Your task to perform on an android device: turn vacation reply on in the gmail app Image 0: 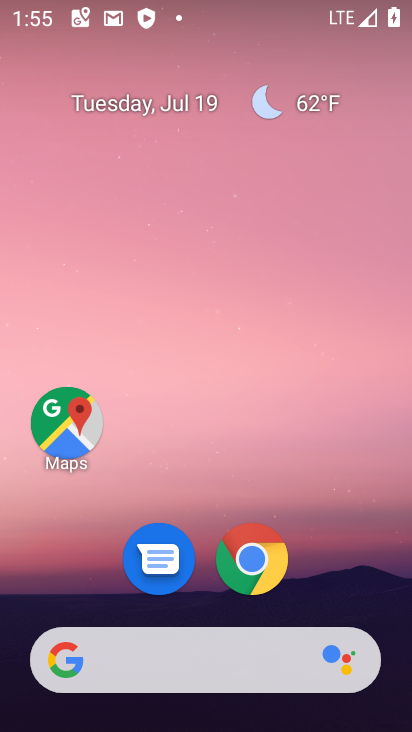
Step 0: drag from (166, 643) to (227, 349)
Your task to perform on an android device: turn vacation reply on in the gmail app Image 1: 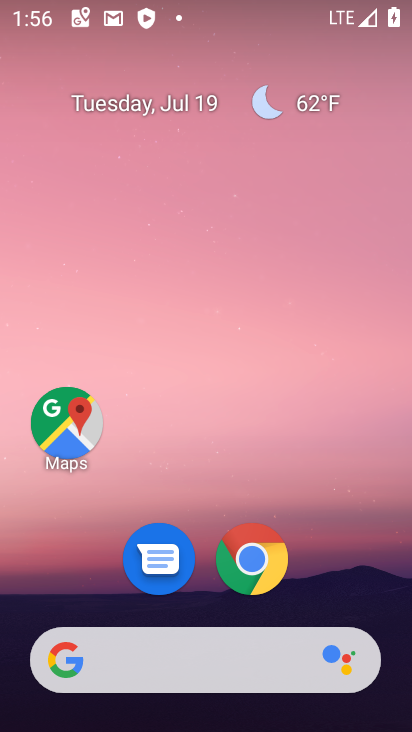
Step 1: drag from (251, 503) to (259, 147)
Your task to perform on an android device: turn vacation reply on in the gmail app Image 2: 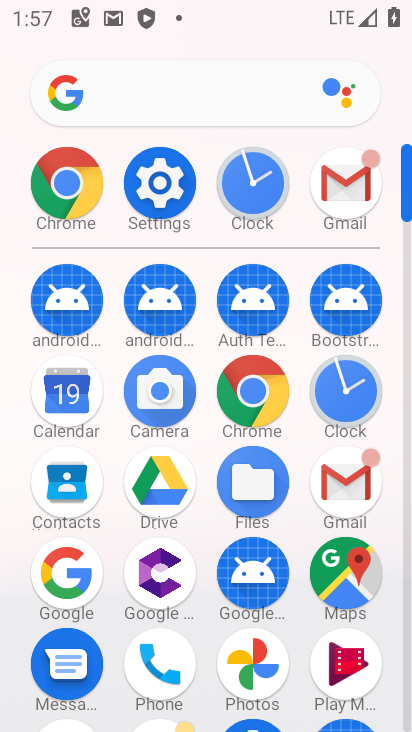
Step 2: click (355, 464)
Your task to perform on an android device: turn vacation reply on in the gmail app Image 3: 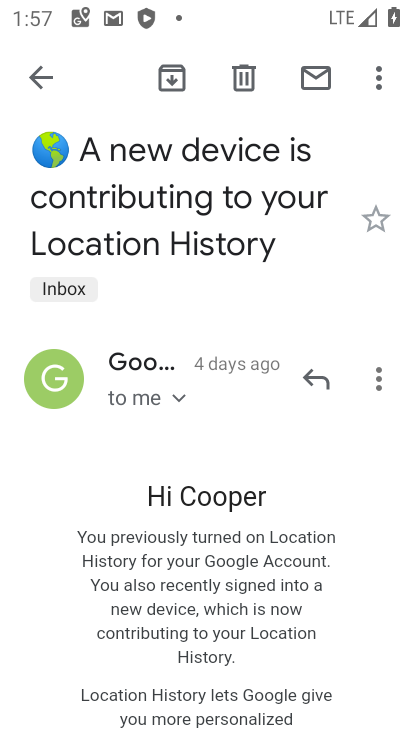
Step 3: click (30, 91)
Your task to perform on an android device: turn vacation reply on in the gmail app Image 4: 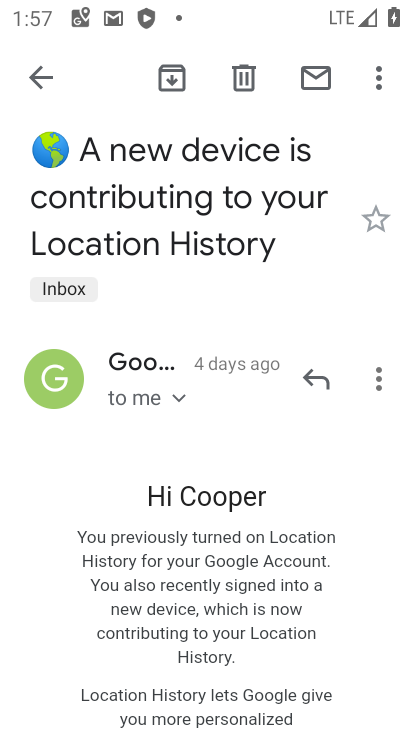
Step 4: click (39, 76)
Your task to perform on an android device: turn vacation reply on in the gmail app Image 5: 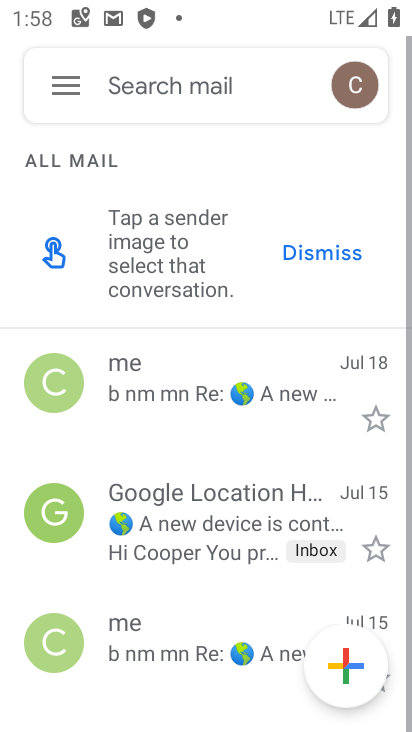
Step 5: click (58, 96)
Your task to perform on an android device: turn vacation reply on in the gmail app Image 6: 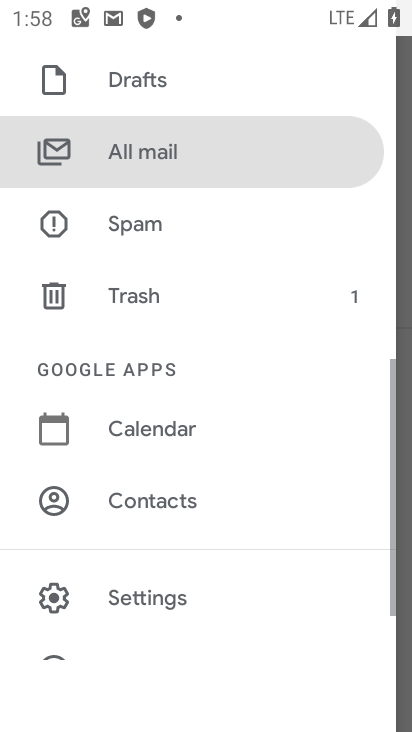
Step 6: click (152, 602)
Your task to perform on an android device: turn vacation reply on in the gmail app Image 7: 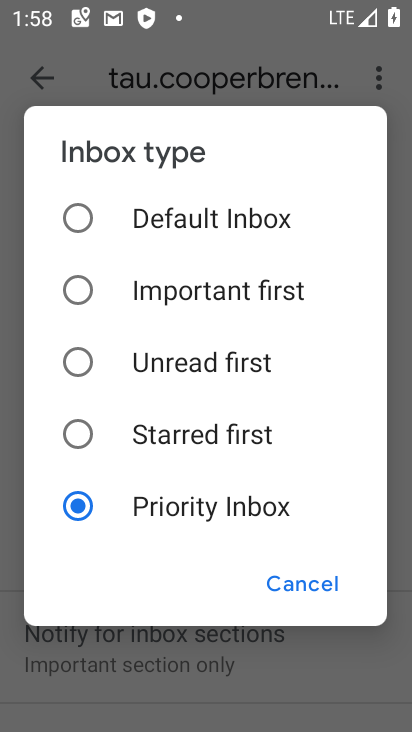
Step 7: click (328, 580)
Your task to perform on an android device: turn vacation reply on in the gmail app Image 8: 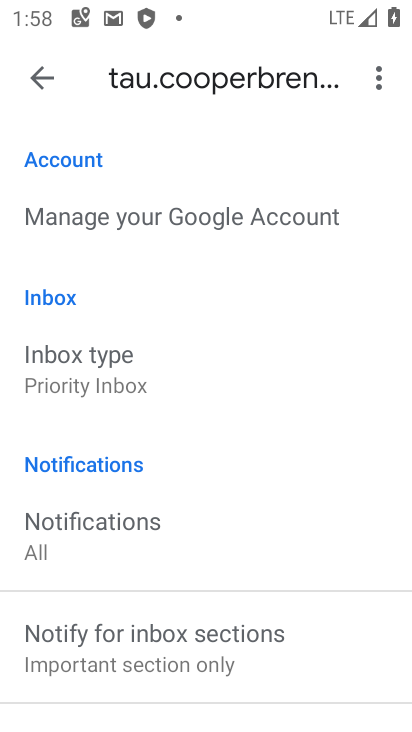
Step 8: drag from (113, 583) to (176, 73)
Your task to perform on an android device: turn vacation reply on in the gmail app Image 9: 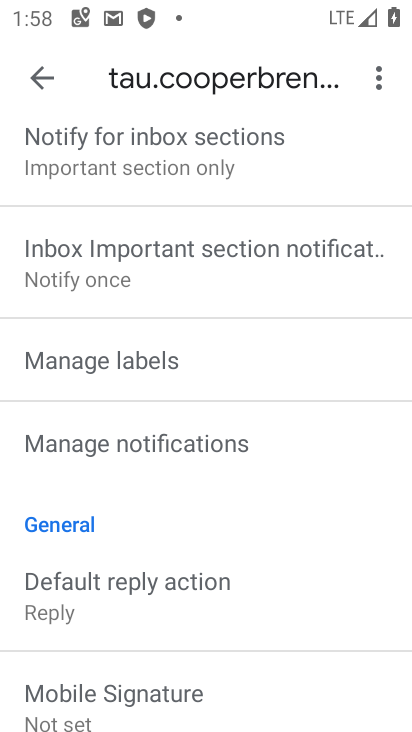
Step 9: drag from (82, 619) to (149, 131)
Your task to perform on an android device: turn vacation reply on in the gmail app Image 10: 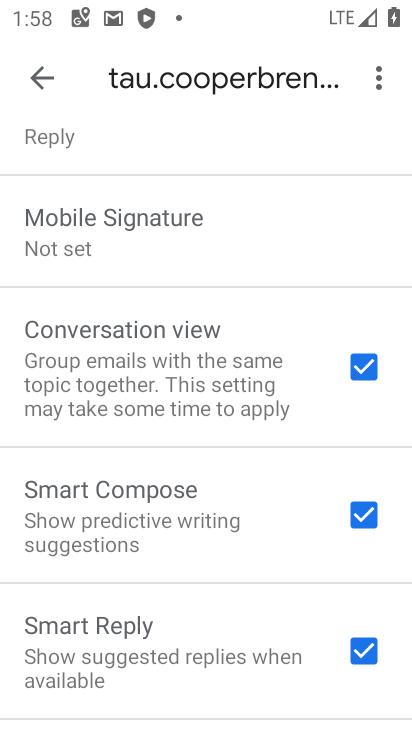
Step 10: drag from (122, 618) to (187, 235)
Your task to perform on an android device: turn vacation reply on in the gmail app Image 11: 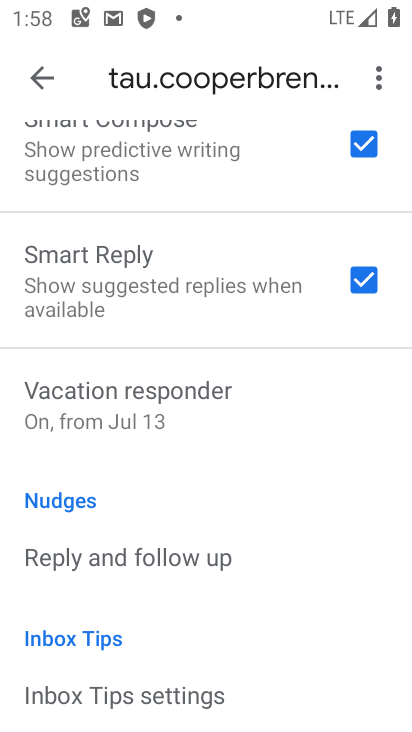
Step 11: click (181, 391)
Your task to perform on an android device: turn vacation reply on in the gmail app Image 12: 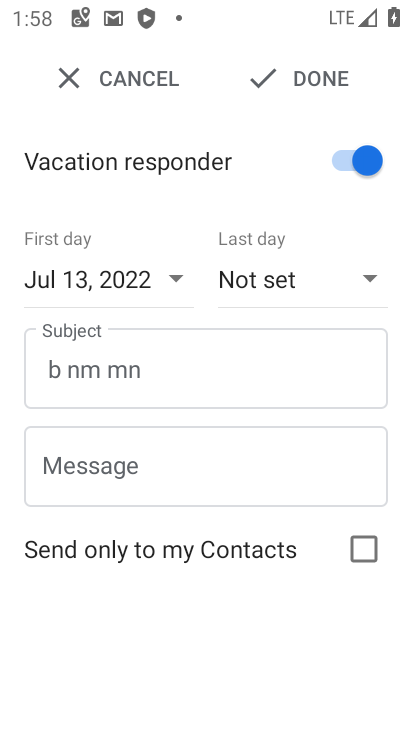
Step 12: task complete